Your task to perform on an android device: Open display settings Image 0: 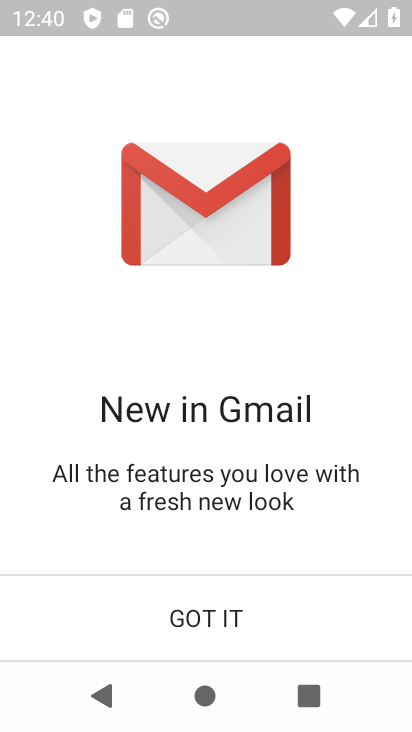
Step 0: press home button
Your task to perform on an android device: Open display settings Image 1: 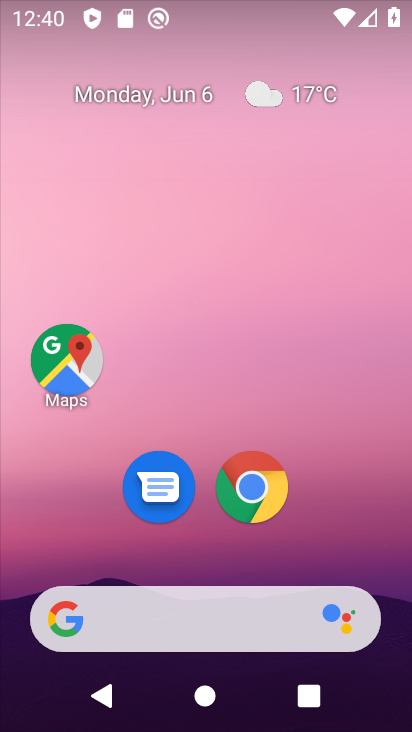
Step 1: drag from (341, 515) to (224, 63)
Your task to perform on an android device: Open display settings Image 2: 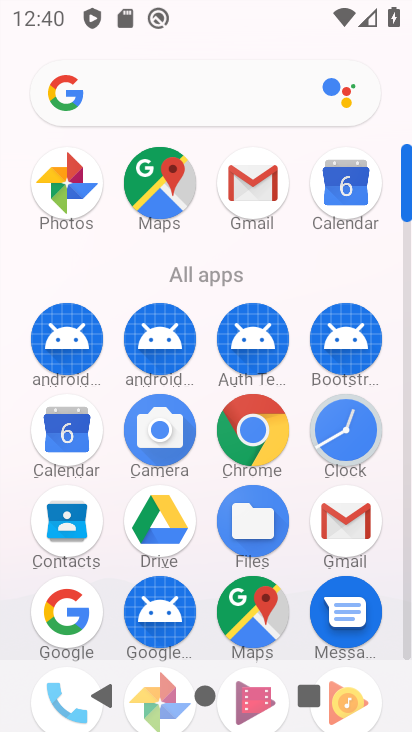
Step 2: drag from (310, 292) to (287, 141)
Your task to perform on an android device: Open display settings Image 3: 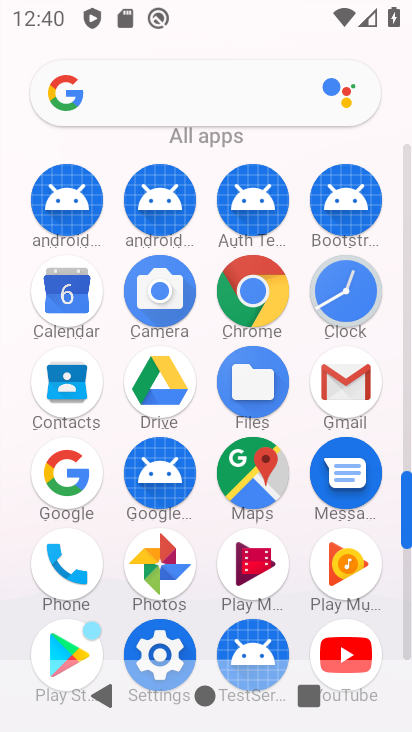
Step 3: click (158, 653)
Your task to perform on an android device: Open display settings Image 4: 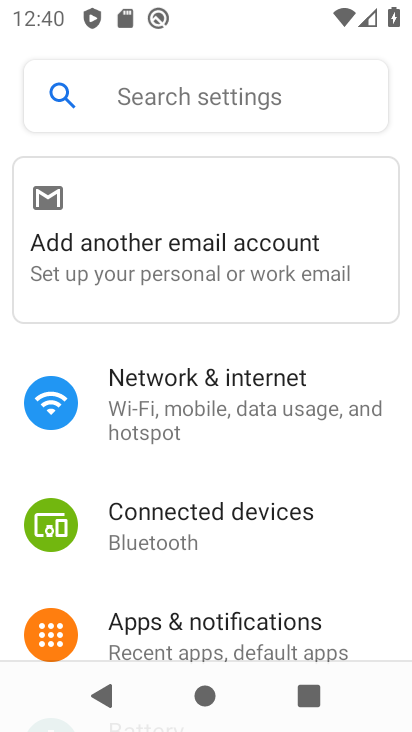
Step 4: drag from (193, 480) to (241, 382)
Your task to perform on an android device: Open display settings Image 5: 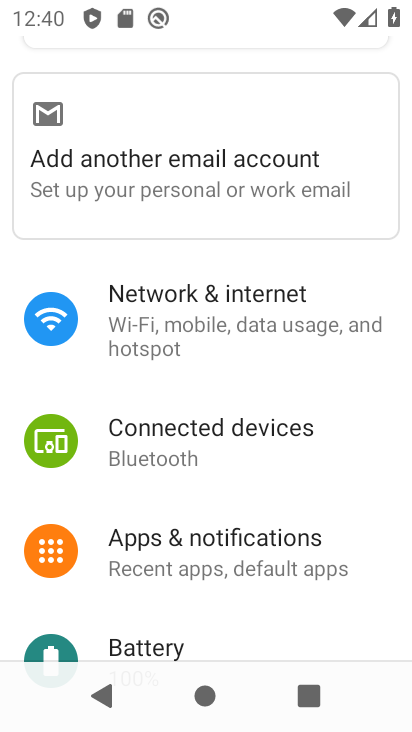
Step 5: drag from (217, 468) to (286, 361)
Your task to perform on an android device: Open display settings Image 6: 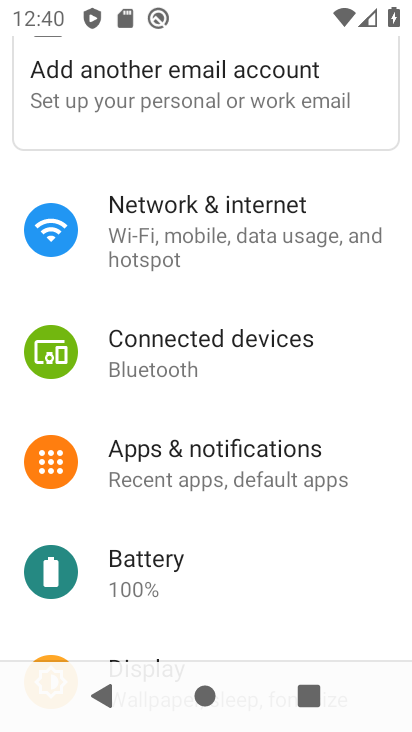
Step 6: drag from (175, 527) to (251, 388)
Your task to perform on an android device: Open display settings Image 7: 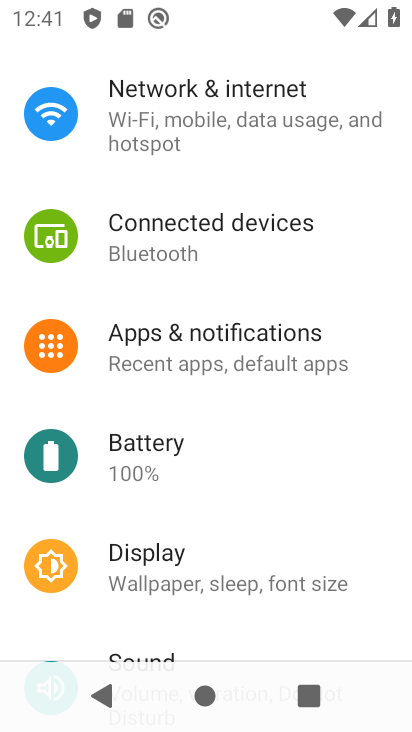
Step 7: click (162, 566)
Your task to perform on an android device: Open display settings Image 8: 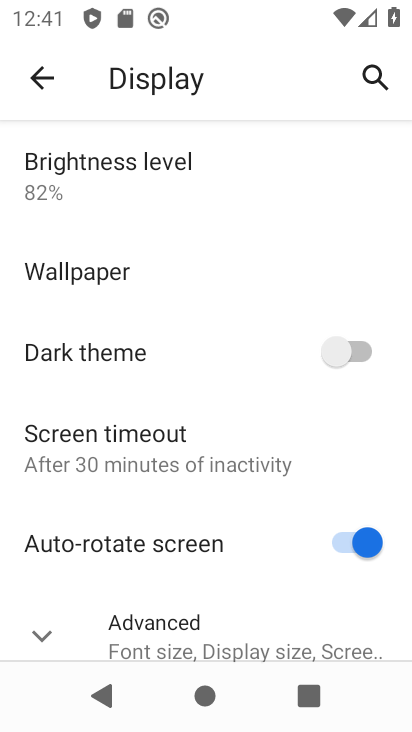
Step 8: task complete